Your task to perform on an android device: Go to location settings Image 0: 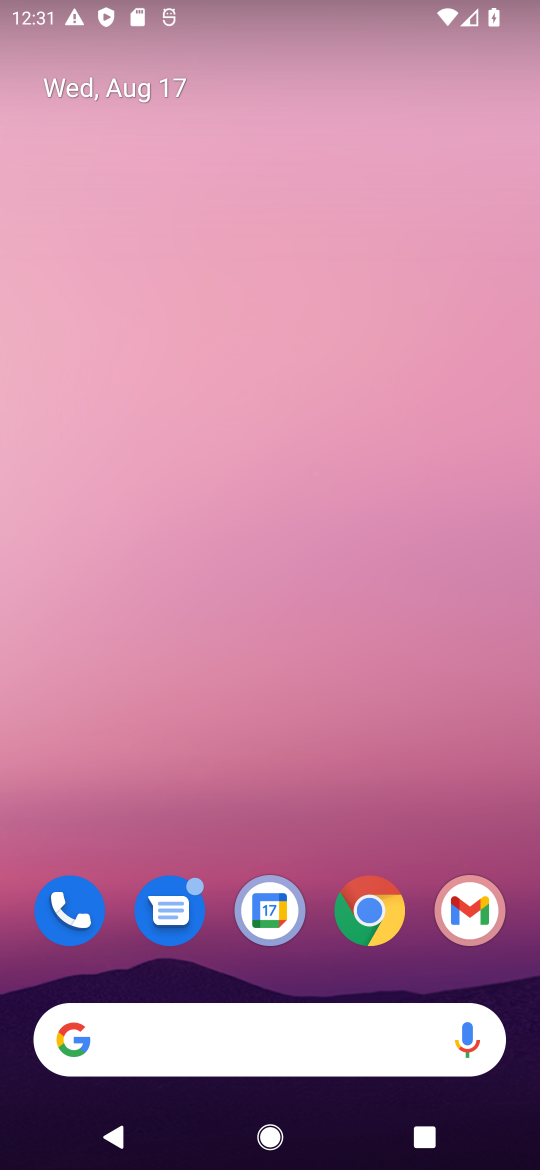
Step 0: drag from (277, 938) to (413, 21)
Your task to perform on an android device: Go to location settings Image 1: 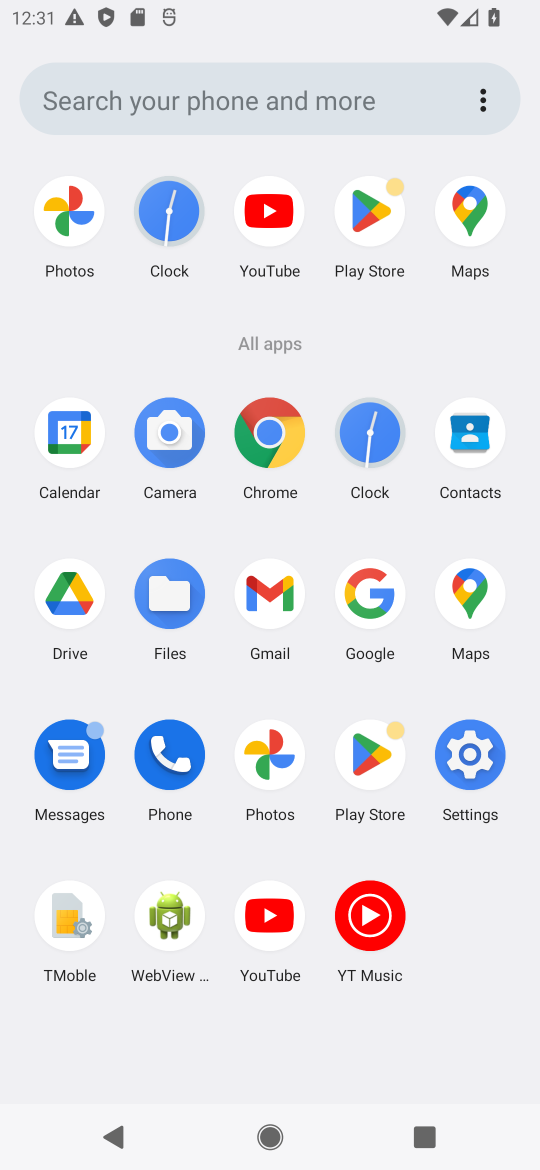
Step 1: click (485, 745)
Your task to perform on an android device: Go to location settings Image 2: 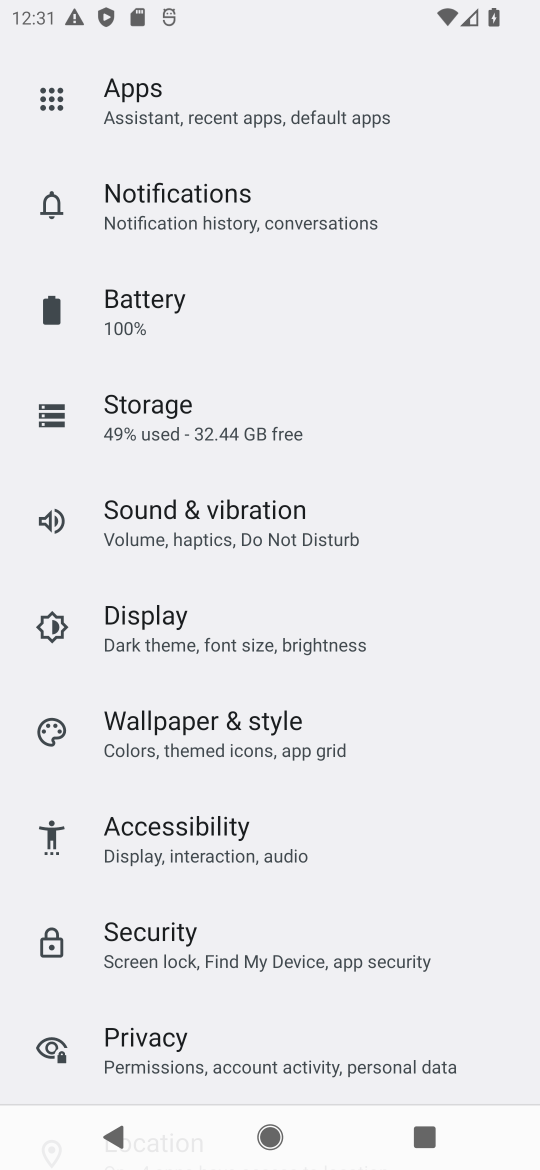
Step 2: drag from (322, 171) to (384, 550)
Your task to perform on an android device: Go to location settings Image 3: 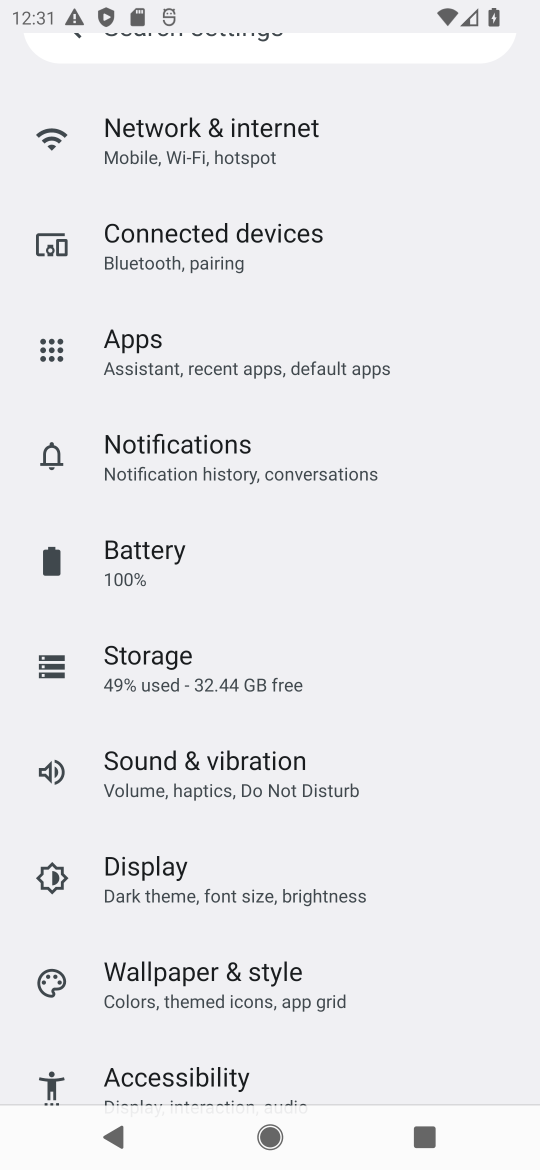
Step 3: drag from (249, 1039) to (357, 450)
Your task to perform on an android device: Go to location settings Image 4: 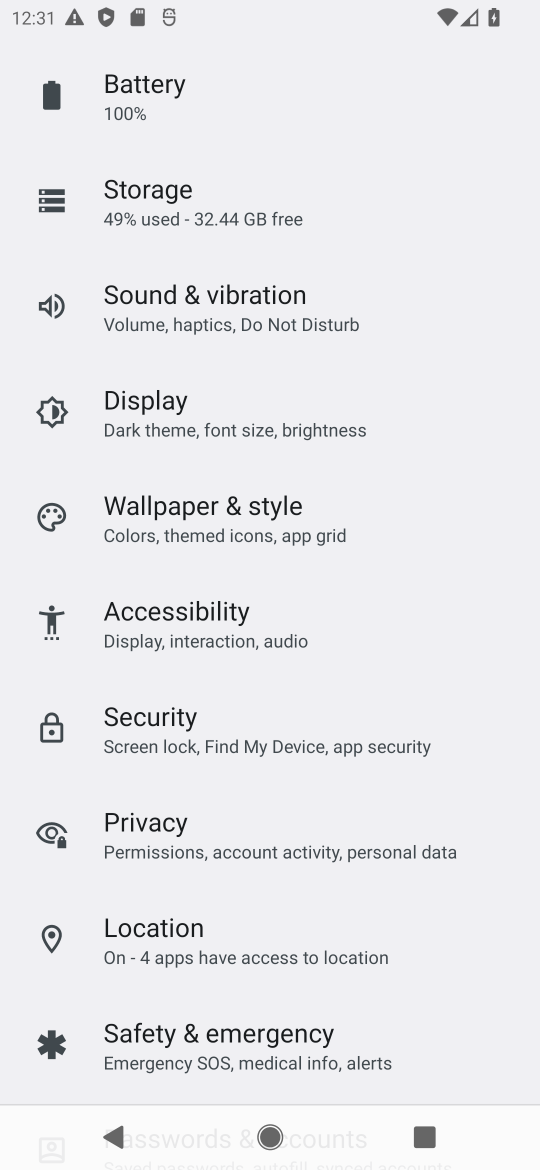
Step 4: click (177, 922)
Your task to perform on an android device: Go to location settings Image 5: 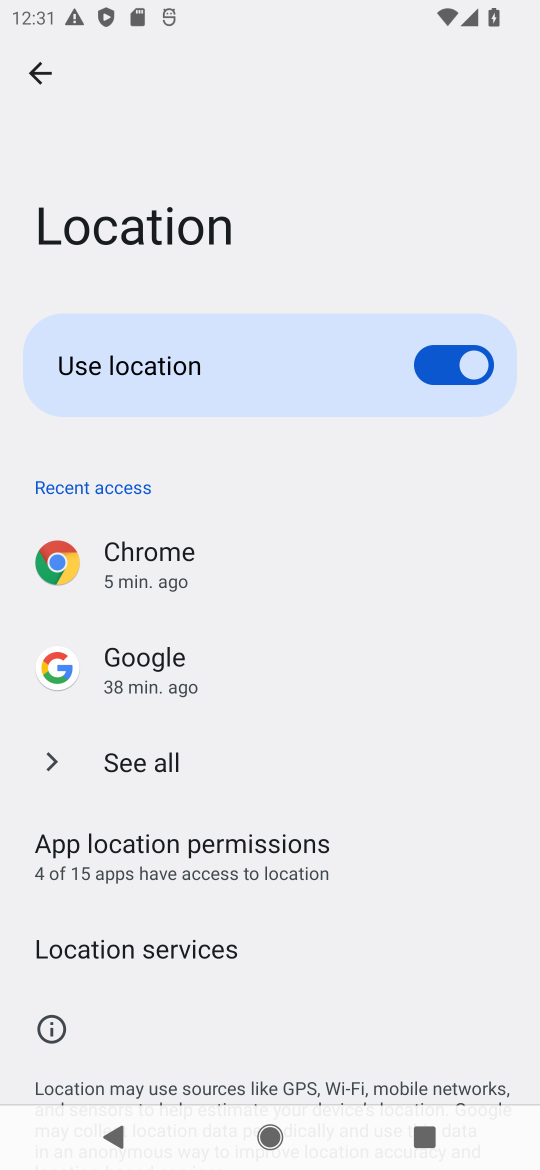
Step 5: task complete